Your task to perform on an android device: change the clock display to analog Image 0: 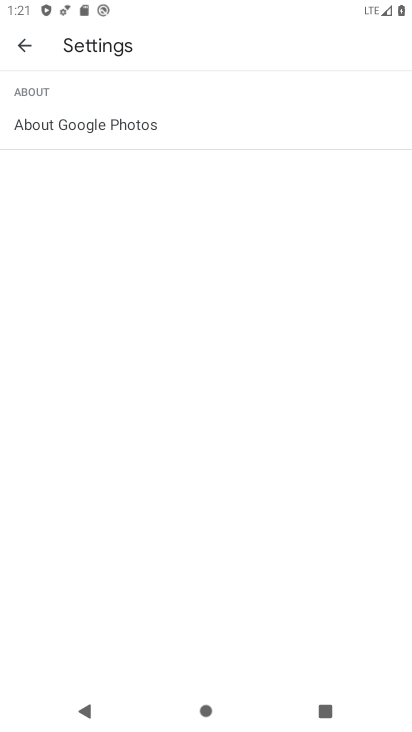
Step 0: press home button
Your task to perform on an android device: change the clock display to analog Image 1: 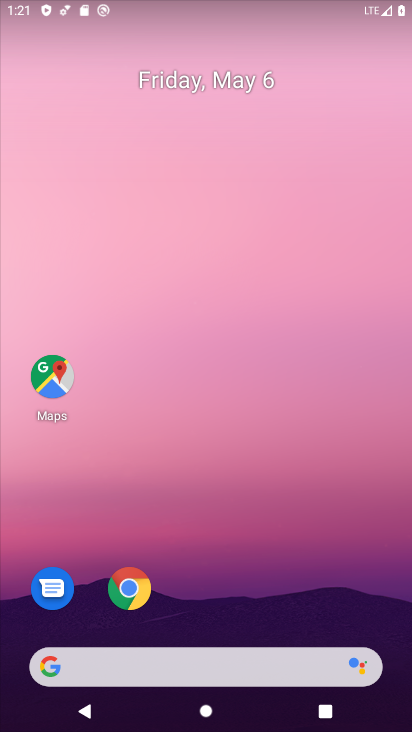
Step 1: drag from (384, 572) to (317, 82)
Your task to perform on an android device: change the clock display to analog Image 2: 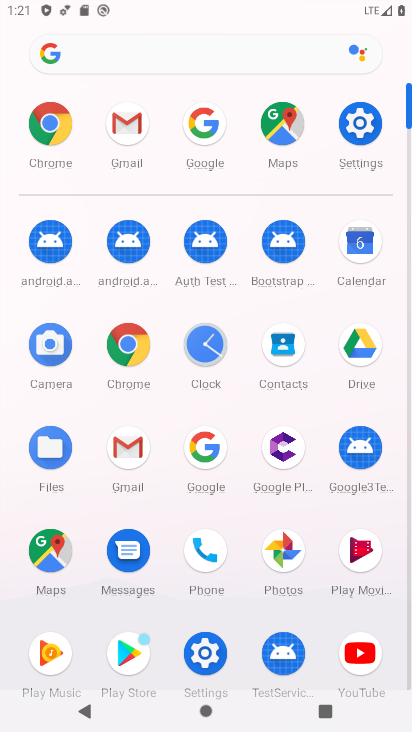
Step 2: click (216, 345)
Your task to perform on an android device: change the clock display to analog Image 3: 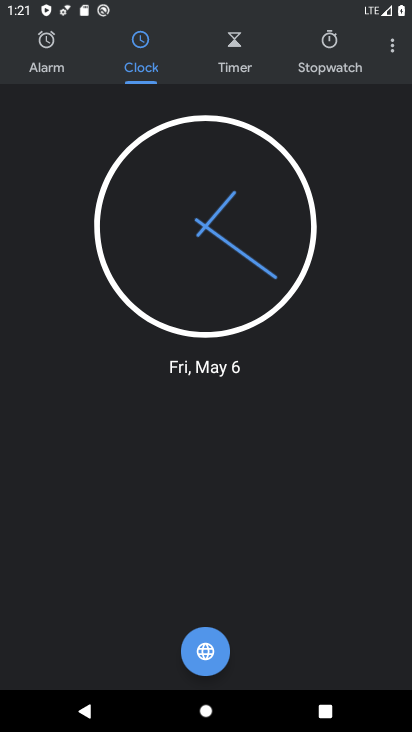
Step 3: click (388, 46)
Your task to perform on an android device: change the clock display to analog Image 4: 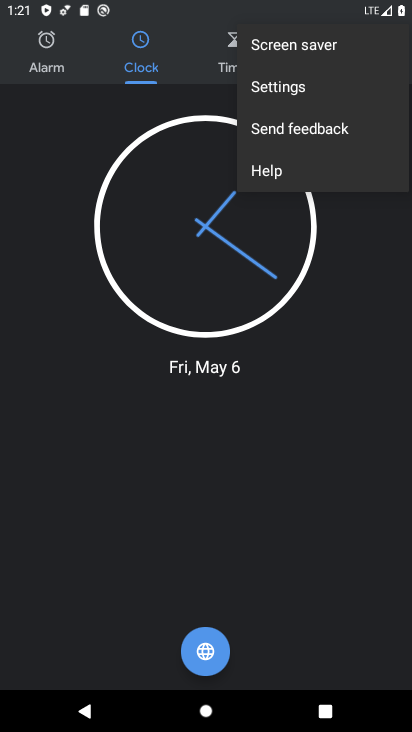
Step 4: click (286, 93)
Your task to perform on an android device: change the clock display to analog Image 5: 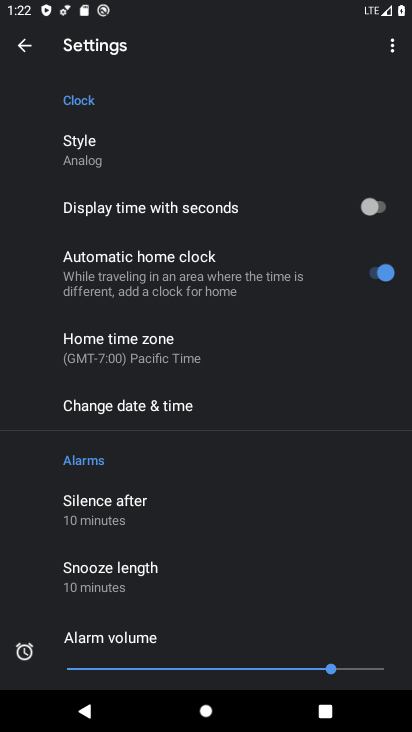
Step 5: task complete